Your task to perform on an android device: visit the assistant section in the google photos Image 0: 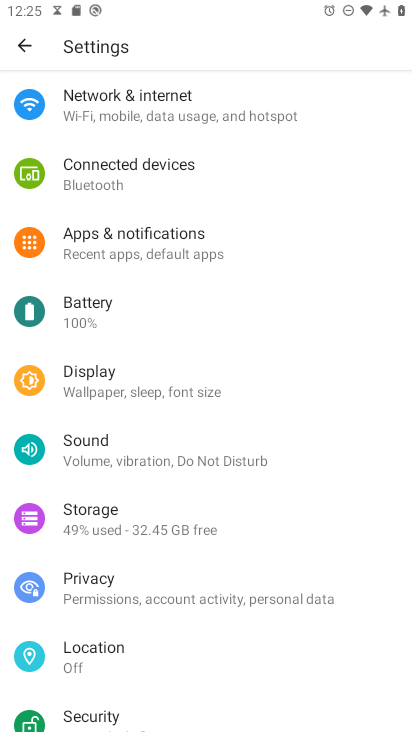
Step 0: press home button
Your task to perform on an android device: visit the assistant section in the google photos Image 1: 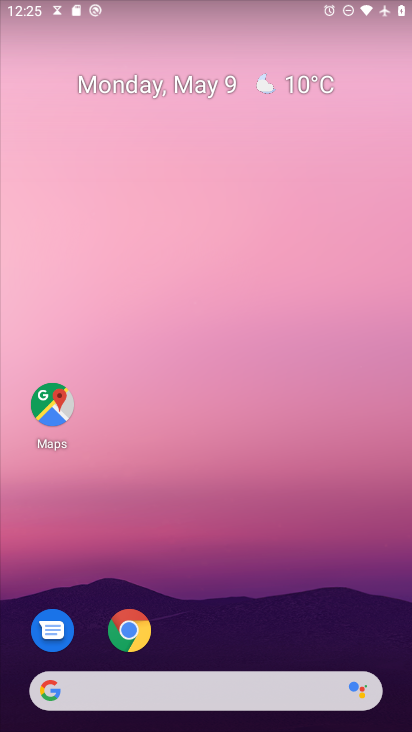
Step 1: drag from (168, 617) to (388, 171)
Your task to perform on an android device: visit the assistant section in the google photos Image 2: 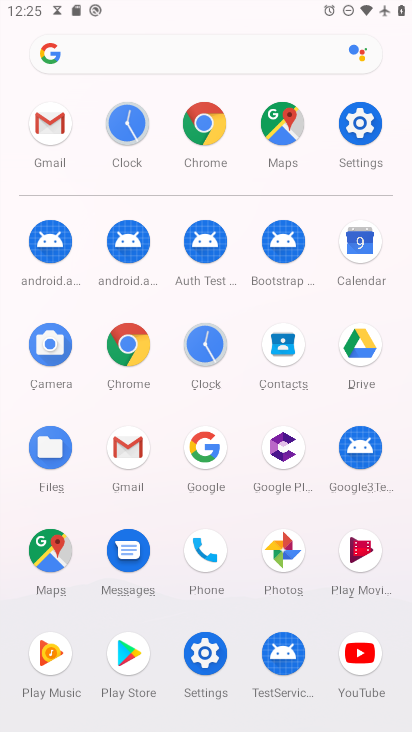
Step 2: click (278, 556)
Your task to perform on an android device: visit the assistant section in the google photos Image 3: 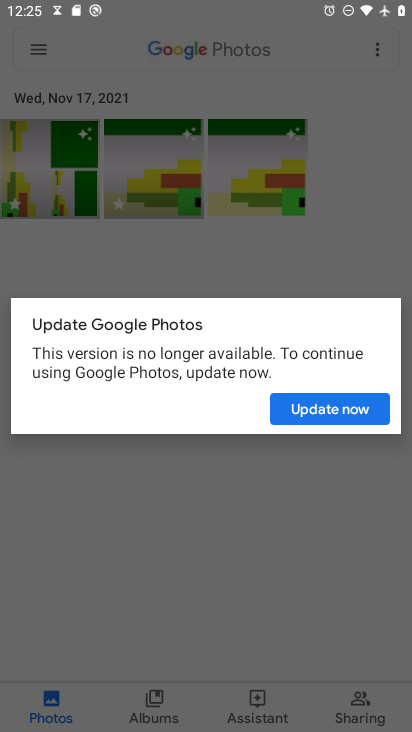
Step 3: click (353, 411)
Your task to perform on an android device: visit the assistant section in the google photos Image 4: 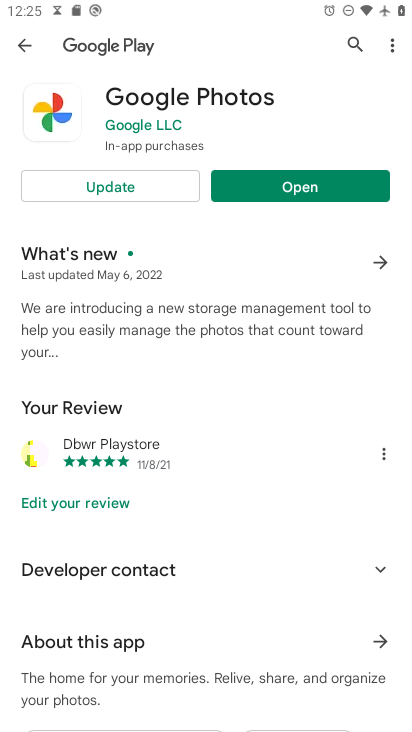
Step 4: click (327, 187)
Your task to perform on an android device: visit the assistant section in the google photos Image 5: 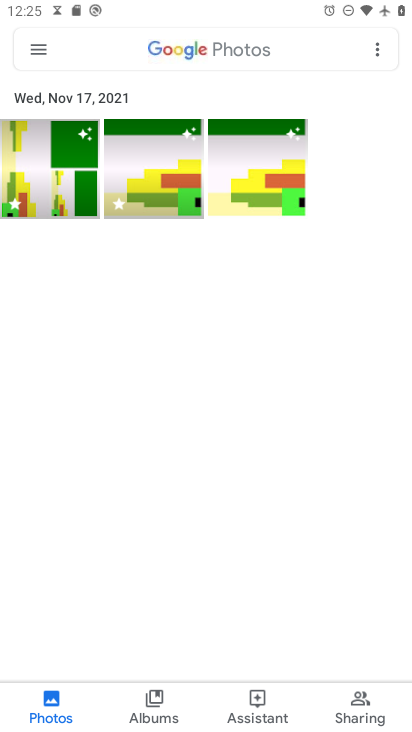
Step 5: click (267, 703)
Your task to perform on an android device: visit the assistant section in the google photos Image 6: 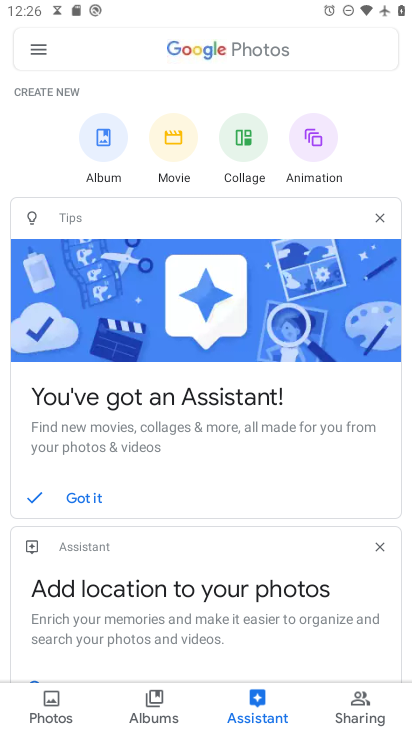
Step 6: task complete